Your task to perform on an android device: turn smart compose on in the gmail app Image 0: 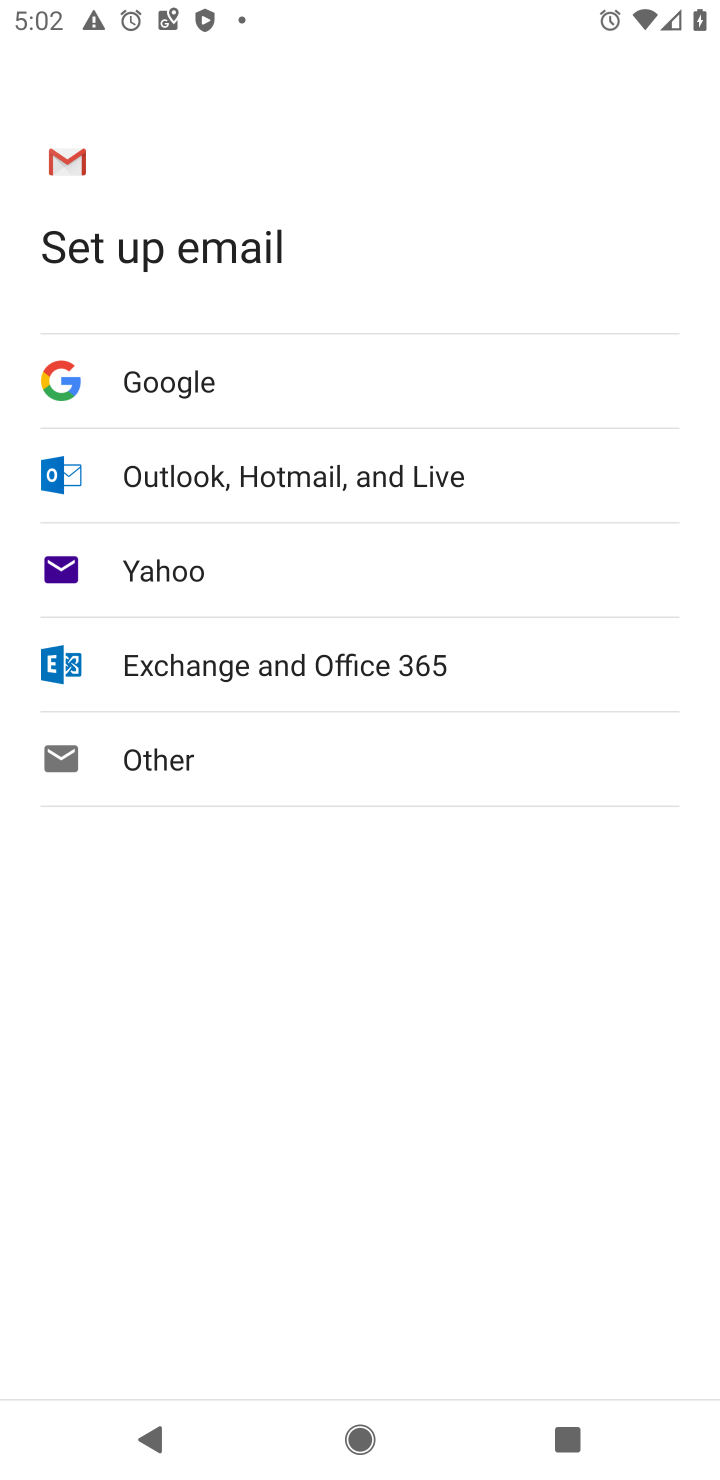
Step 0: press home button
Your task to perform on an android device: turn smart compose on in the gmail app Image 1: 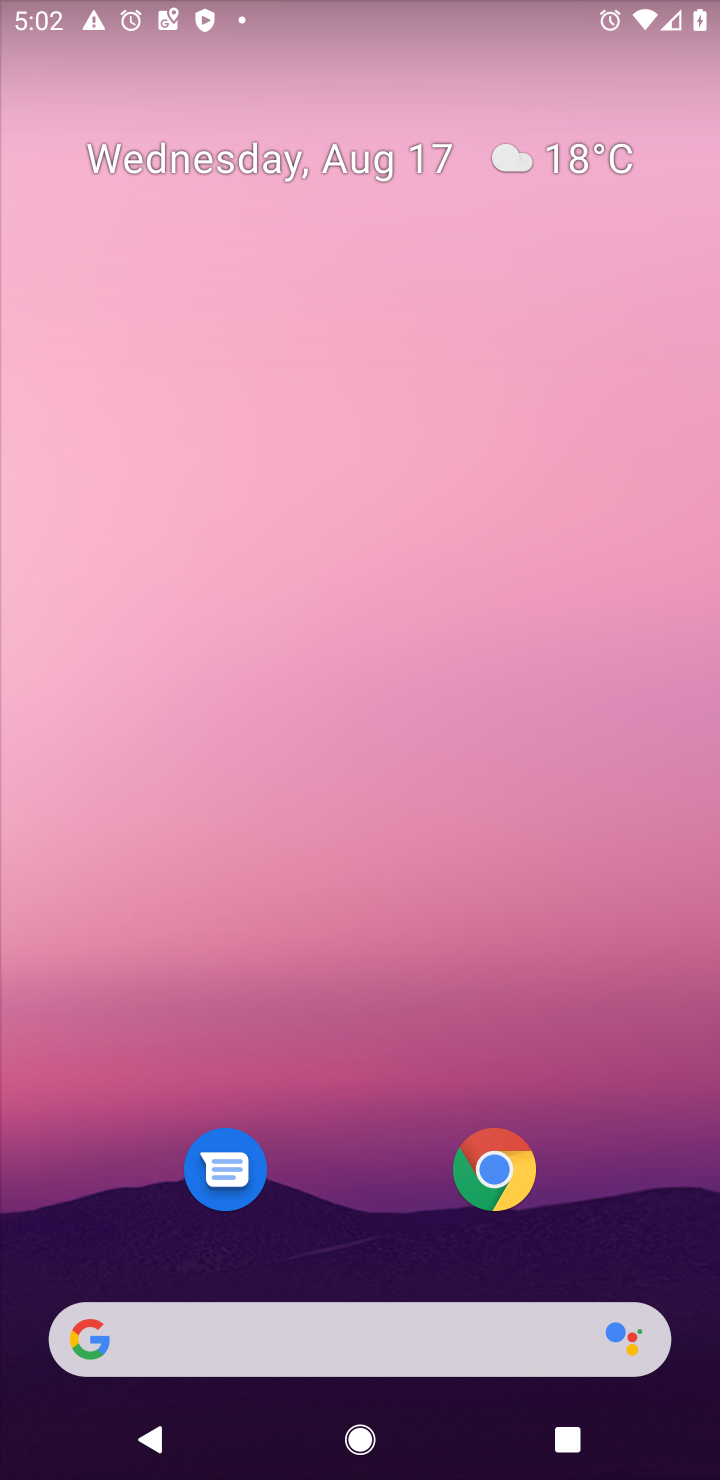
Step 1: drag from (404, 1216) to (417, 113)
Your task to perform on an android device: turn smart compose on in the gmail app Image 2: 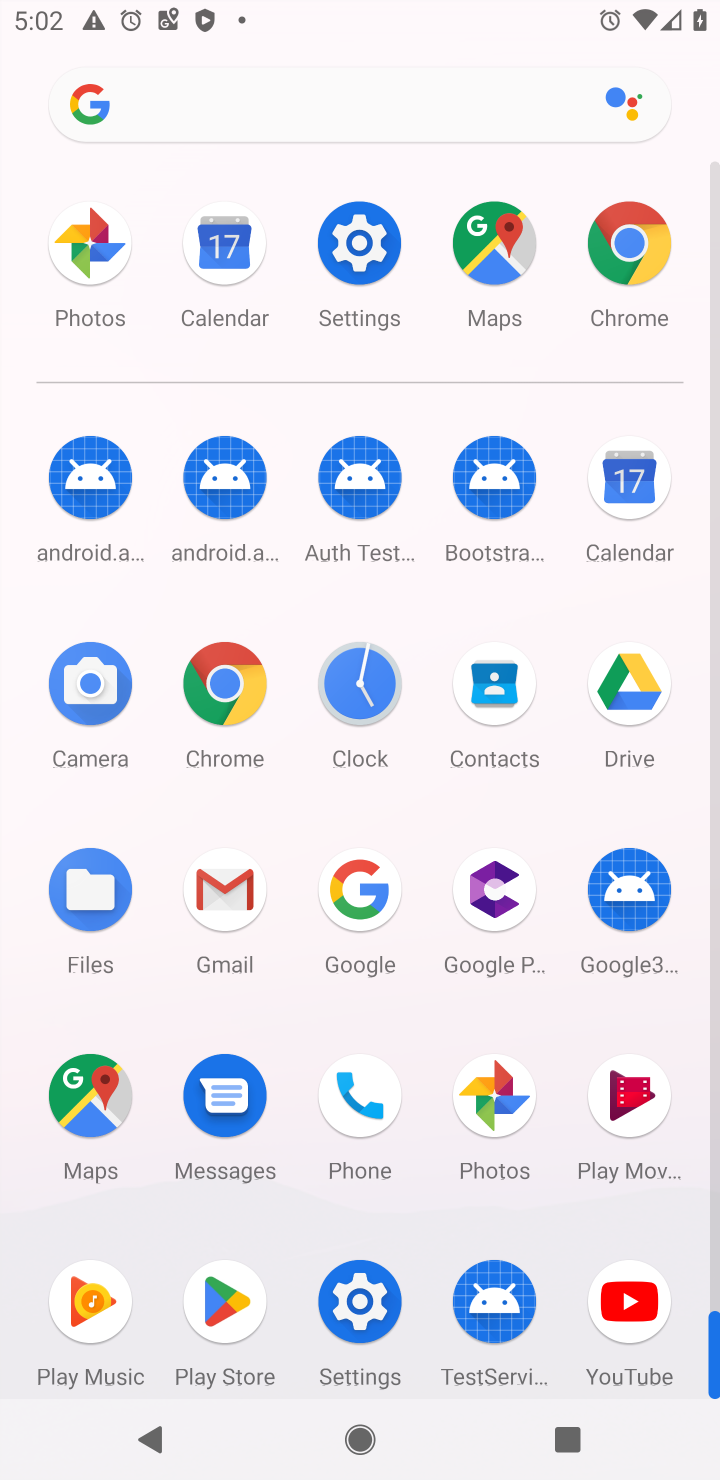
Step 2: click (213, 881)
Your task to perform on an android device: turn smart compose on in the gmail app Image 3: 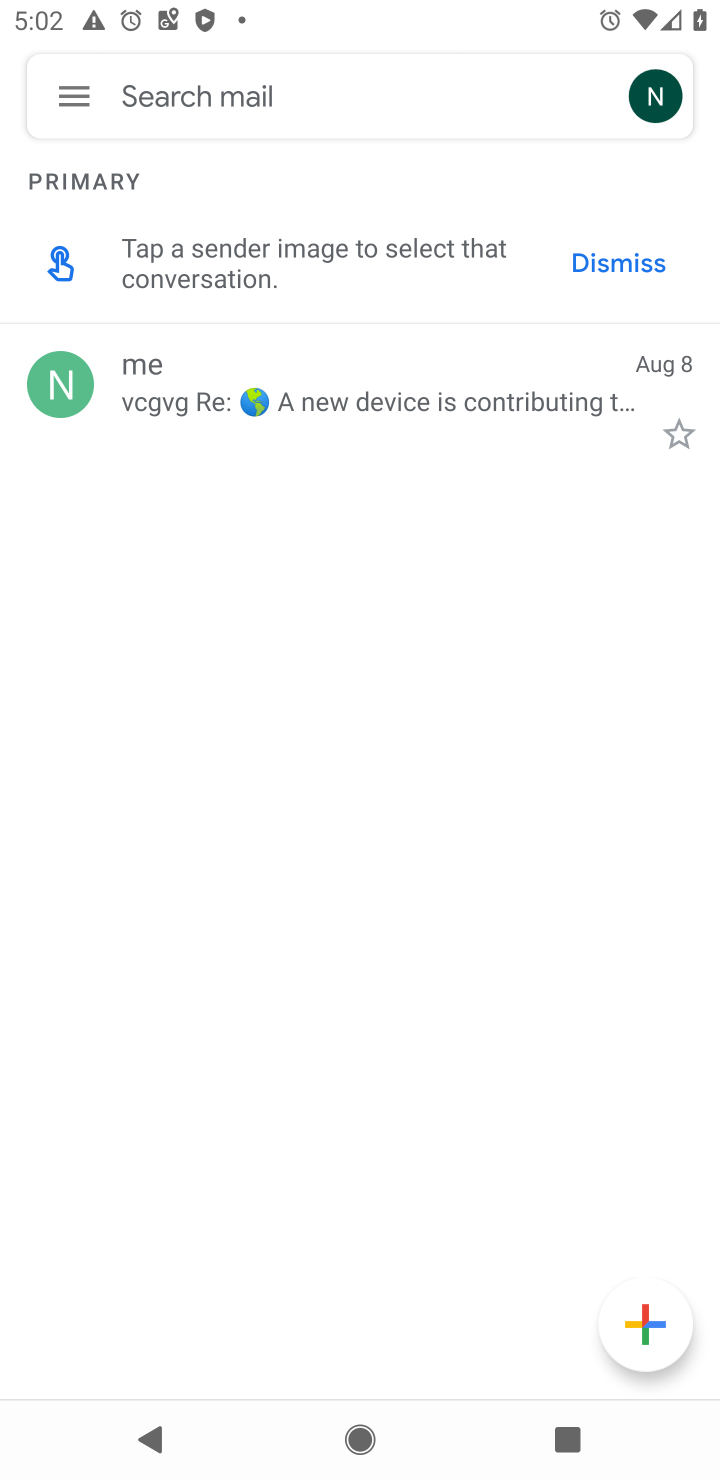
Step 3: click (65, 94)
Your task to perform on an android device: turn smart compose on in the gmail app Image 4: 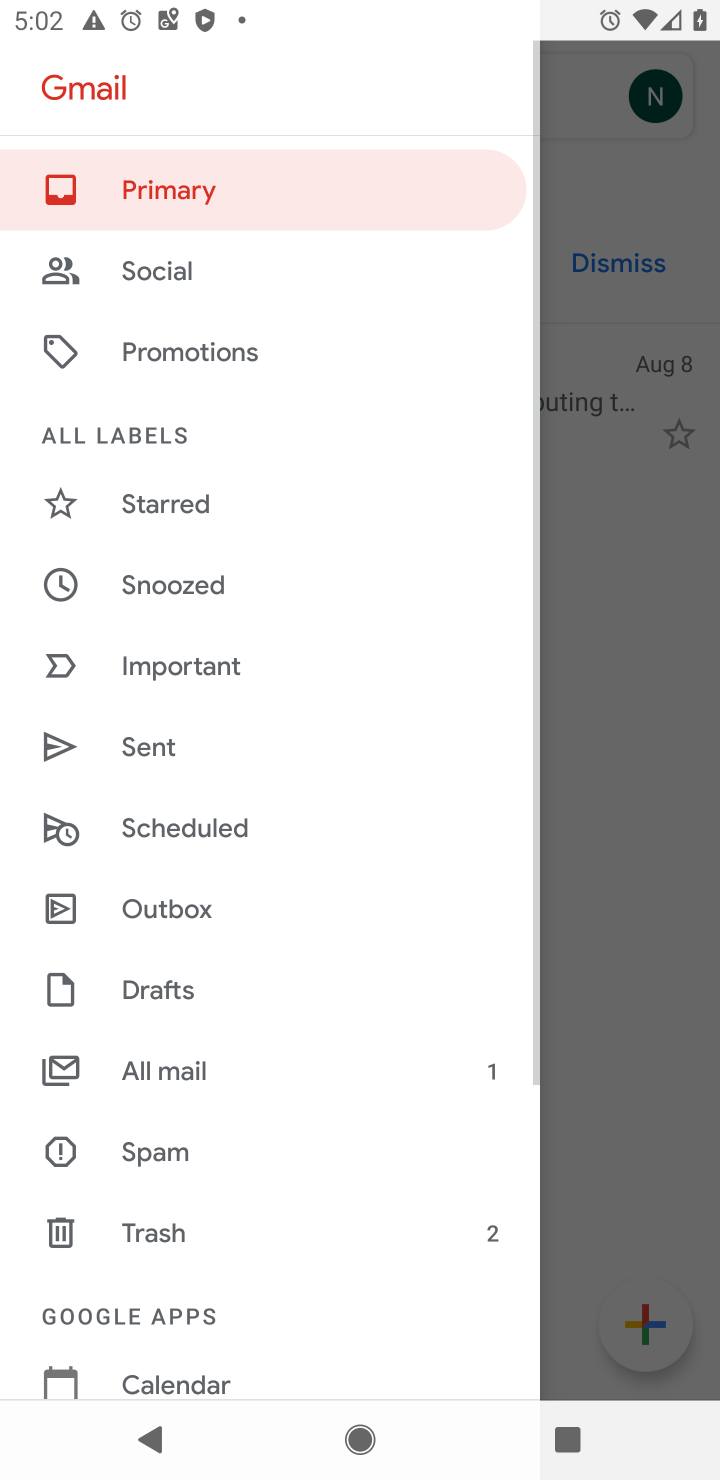
Step 4: drag from (326, 1237) to (351, 580)
Your task to perform on an android device: turn smart compose on in the gmail app Image 5: 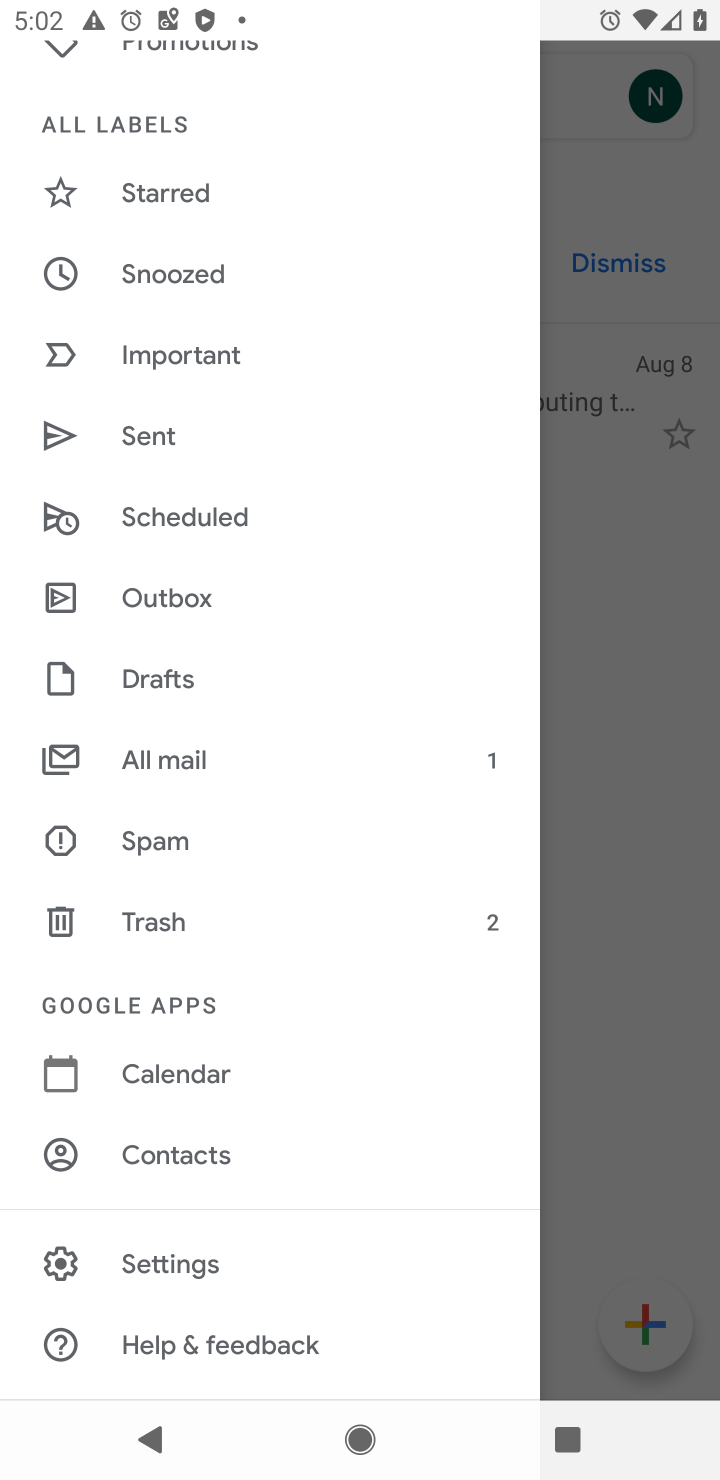
Step 5: click (183, 1264)
Your task to perform on an android device: turn smart compose on in the gmail app Image 6: 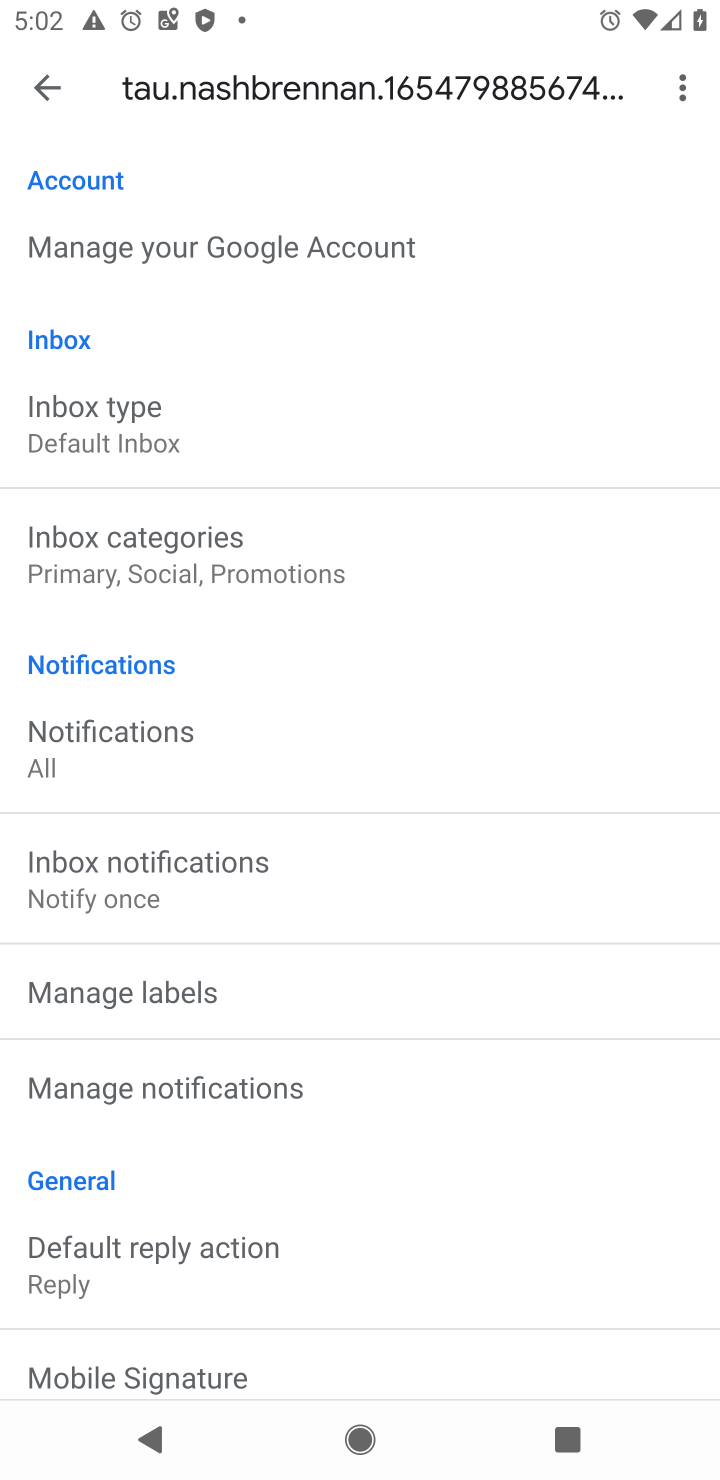
Step 6: task complete